Your task to perform on an android device: Go to Maps Image 0: 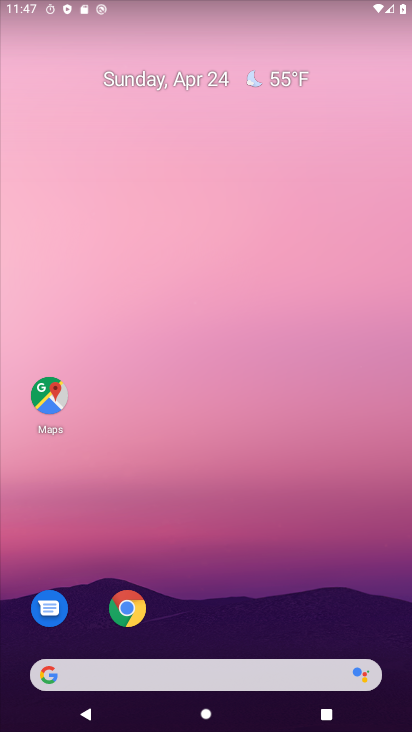
Step 0: click (55, 390)
Your task to perform on an android device: Go to Maps Image 1: 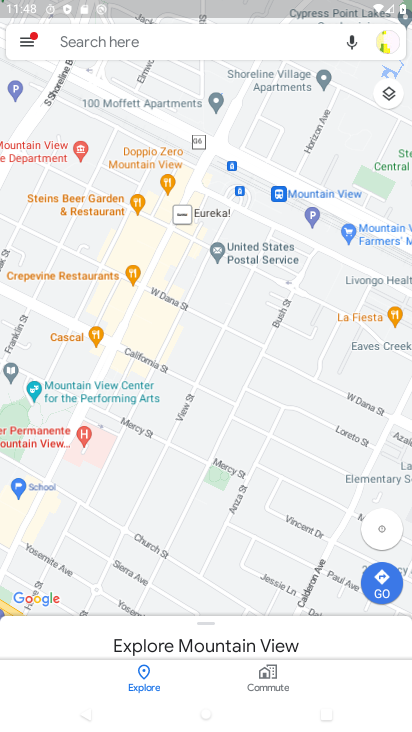
Step 1: task complete